Your task to perform on an android device: Open my contact list Image 0: 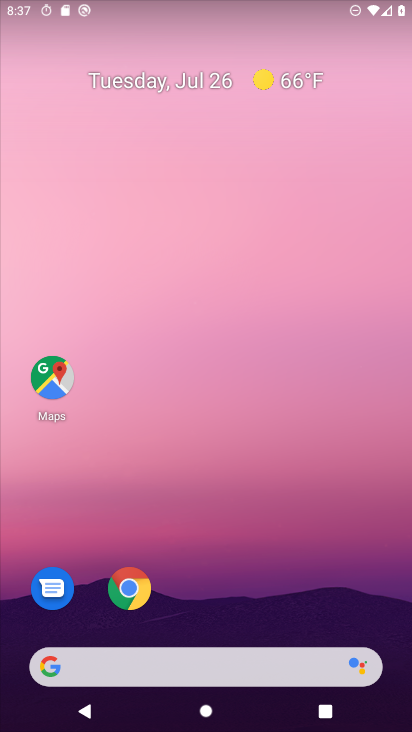
Step 0: drag from (252, 724) to (242, 119)
Your task to perform on an android device: Open my contact list Image 1: 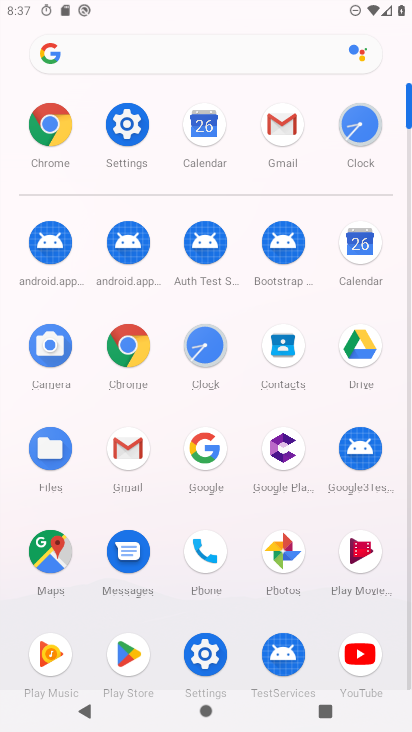
Step 1: click (283, 347)
Your task to perform on an android device: Open my contact list Image 2: 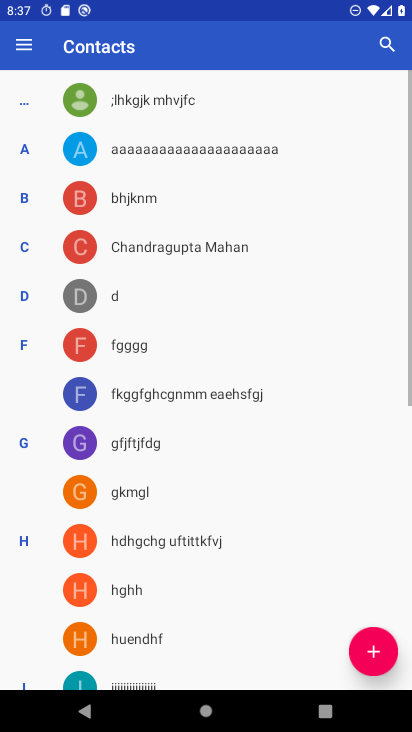
Step 2: press home button
Your task to perform on an android device: Open my contact list Image 3: 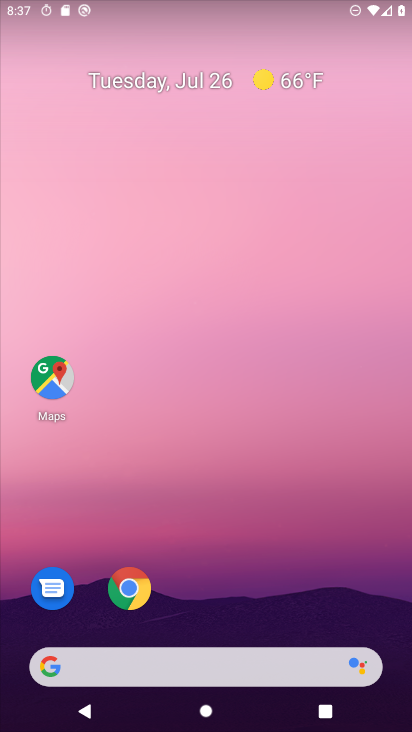
Step 3: drag from (231, 725) to (231, 272)
Your task to perform on an android device: Open my contact list Image 4: 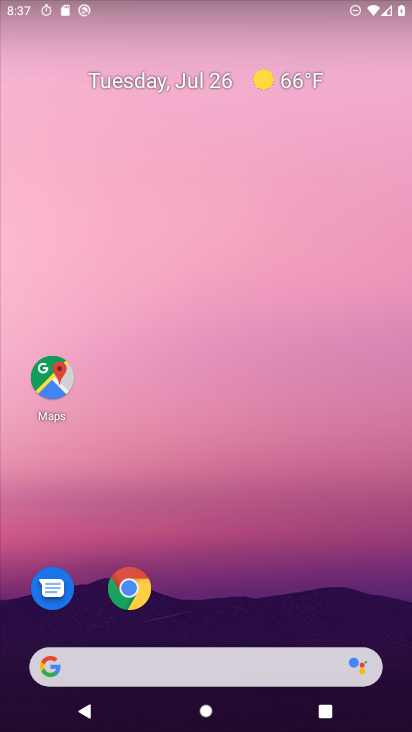
Step 4: drag from (245, 713) to (257, 208)
Your task to perform on an android device: Open my contact list Image 5: 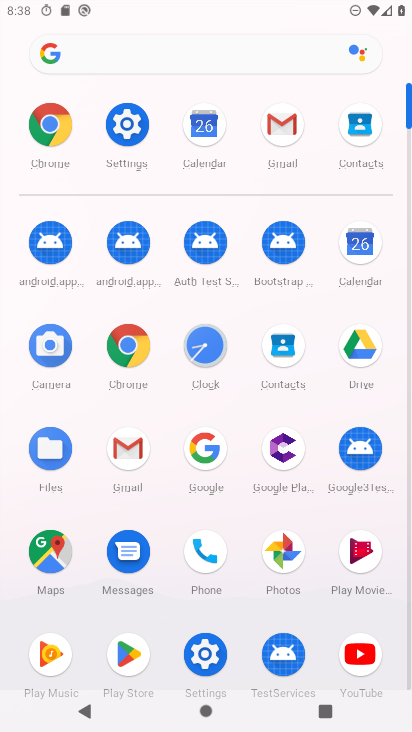
Step 5: click (280, 349)
Your task to perform on an android device: Open my contact list Image 6: 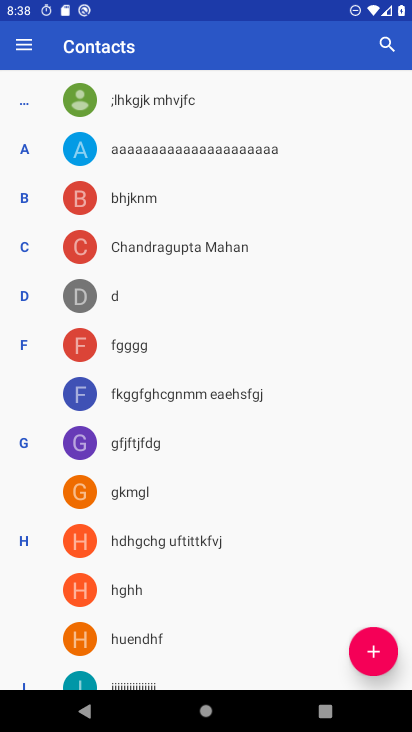
Step 6: task complete